Your task to perform on an android device: Open Google Maps Image 0: 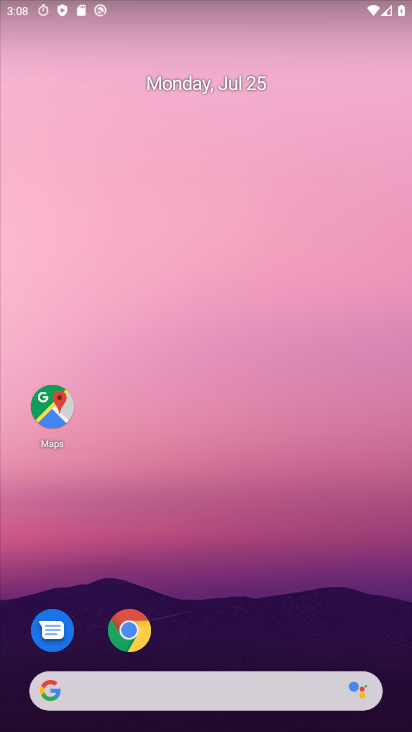
Step 0: drag from (308, 658) to (302, 401)
Your task to perform on an android device: Open Google Maps Image 1: 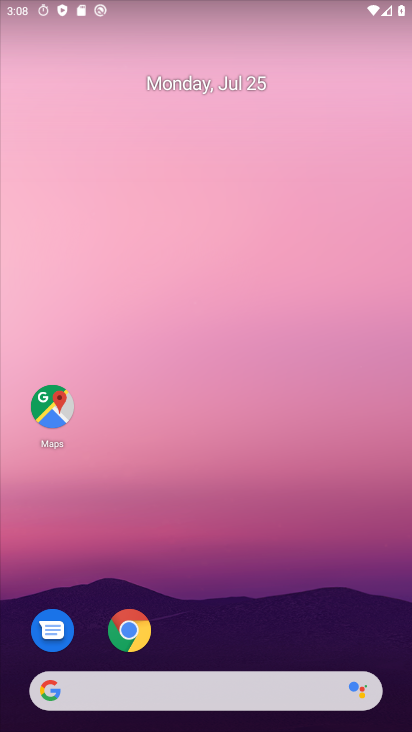
Step 1: drag from (315, 591) to (266, 250)
Your task to perform on an android device: Open Google Maps Image 2: 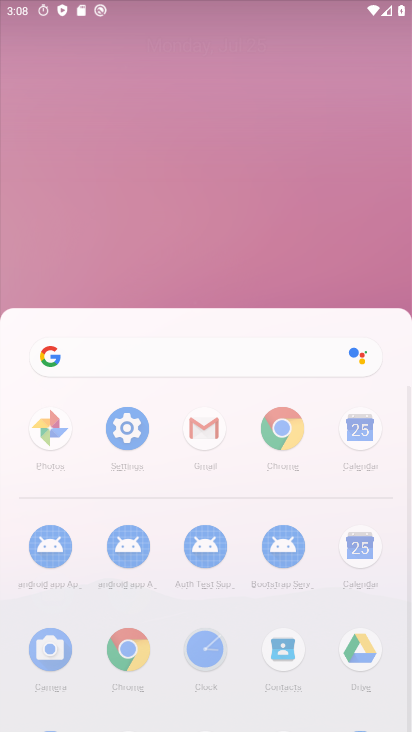
Step 2: drag from (256, 629) to (276, 283)
Your task to perform on an android device: Open Google Maps Image 3: 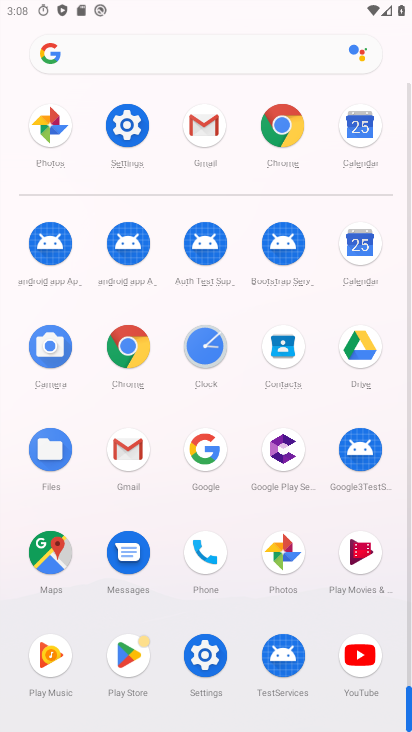
Step 3: click (282, 141)
Your task to perform on an android device: Open Google Maps Image 4: 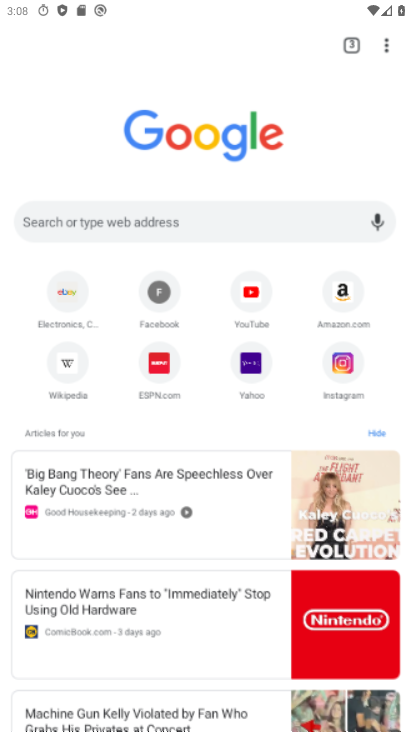
Step 4: press back button
Your task to perform on an android device: Open Google Maps Image 5: 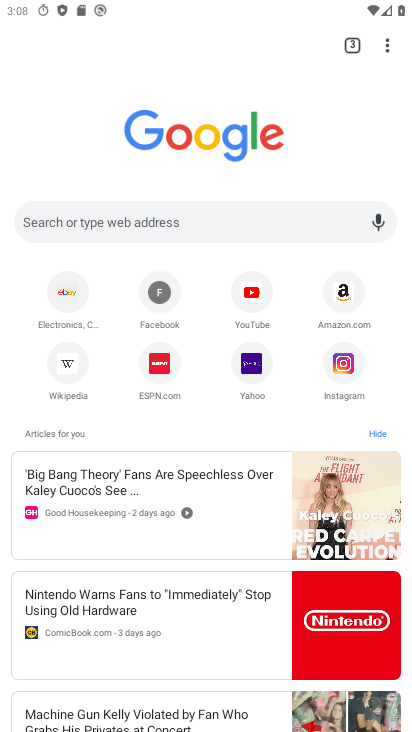
Step 5: press back button
Your task to perform on an android device: Open Google Maps Image 6: 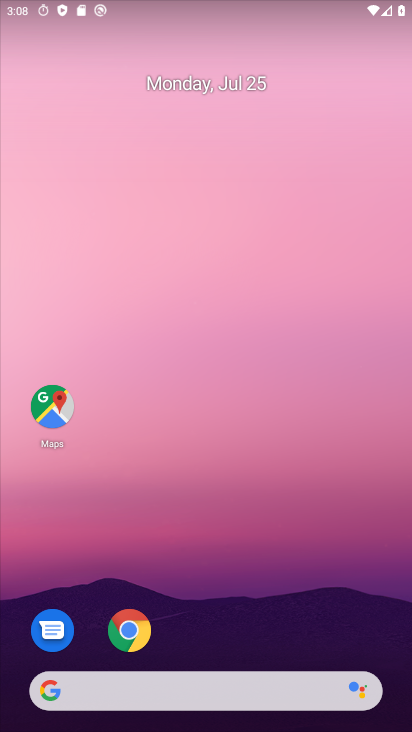
Step 6: drag from (265, 487) to (262, 69)
Your task to perform on an android device: Open Google Maps Image 7: 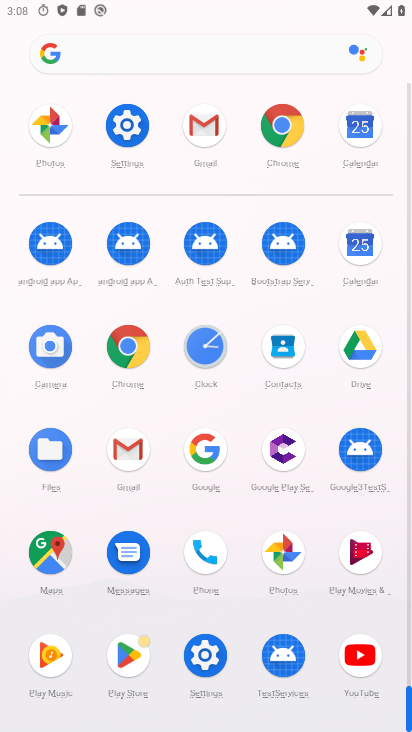
Step 7: click (45, 548)
Your task to perform on an android device: Open Google Maps Image 8: 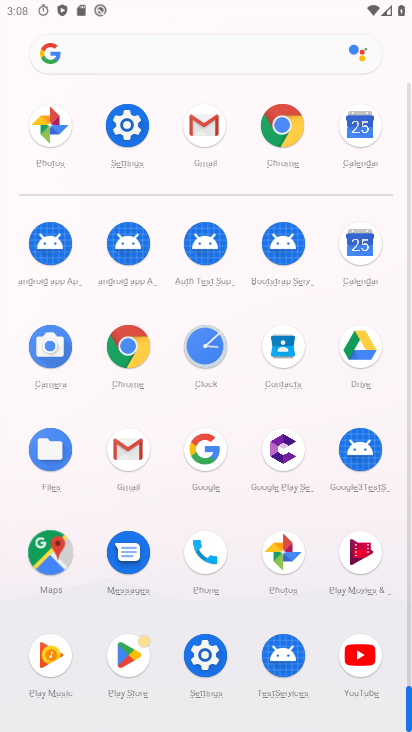
Step 8: click (45, 549)
Your task to perform on an android device: Open Google Maps Image 9: 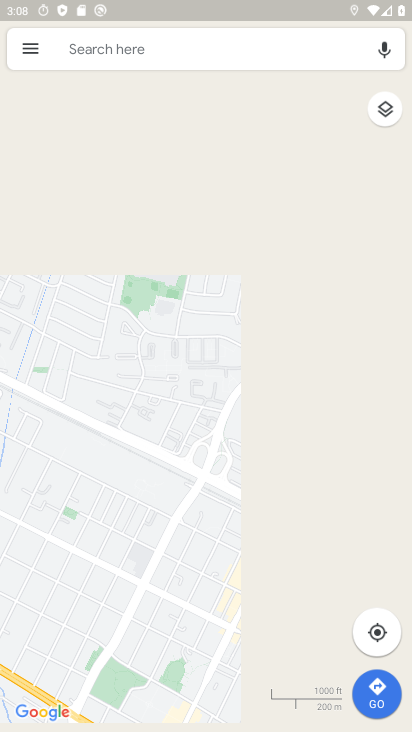
Step 9: task complete